Your task to perform on an android device: Go to wifi settings Image 0: 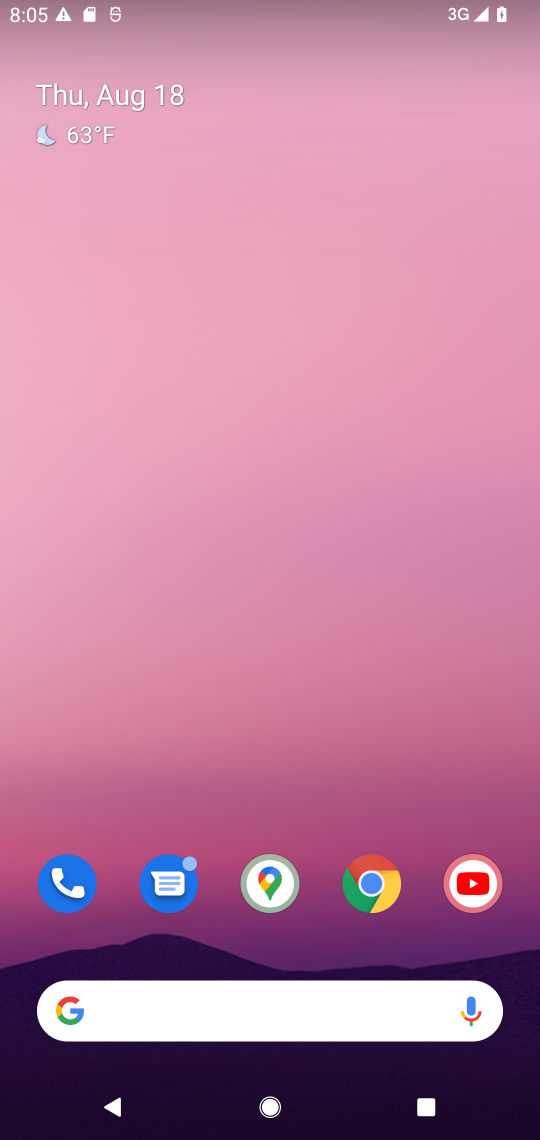
Step 0: drag from (46, 1091) to (293, 333)
Your task to perform on an android device: Go to wifi settings Image 1: 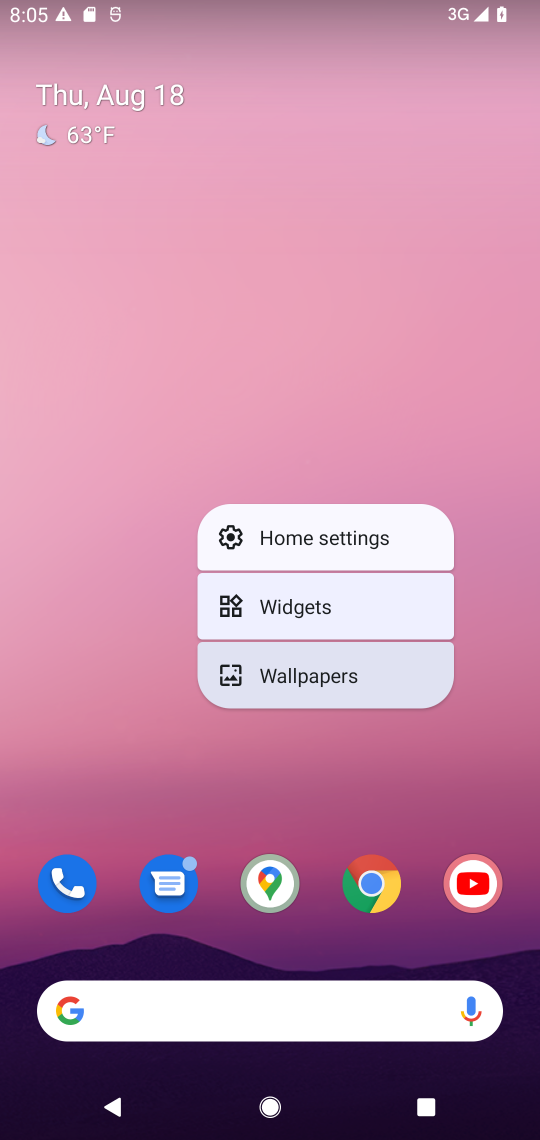
Step 1: drag from (72, 1006) to (207, 380)
Your task to perform on an android device: Go to wifi settings Image 2: 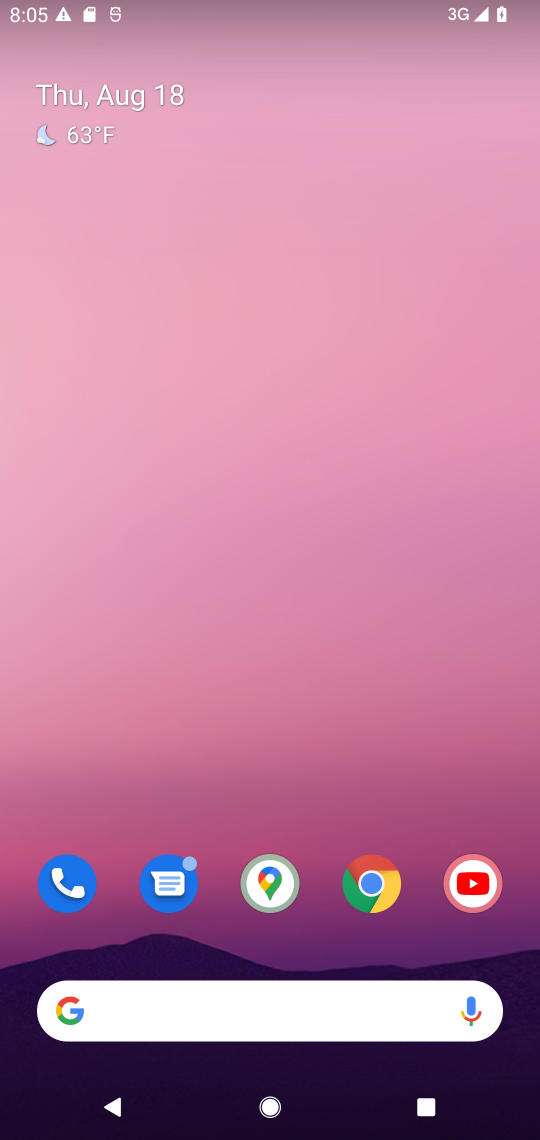
Step 2: drag from (45, 1082) to (325, 366)
Your task to perform on an android device: Go to wifi settings Image 3: 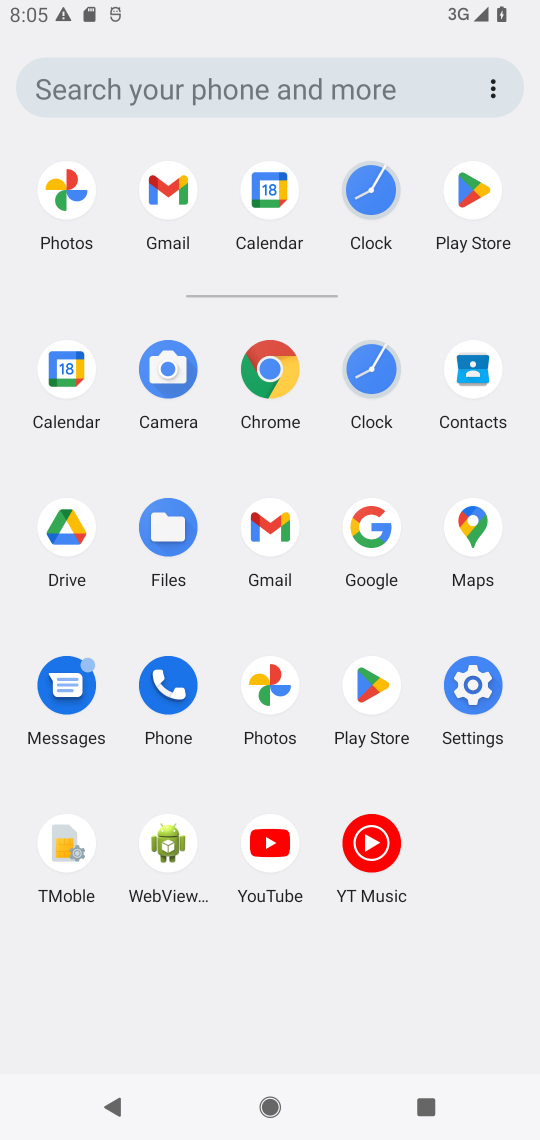
Step 3: click (458, 671)
Your task to perform on an android device: Go to wifi settings Image 4: 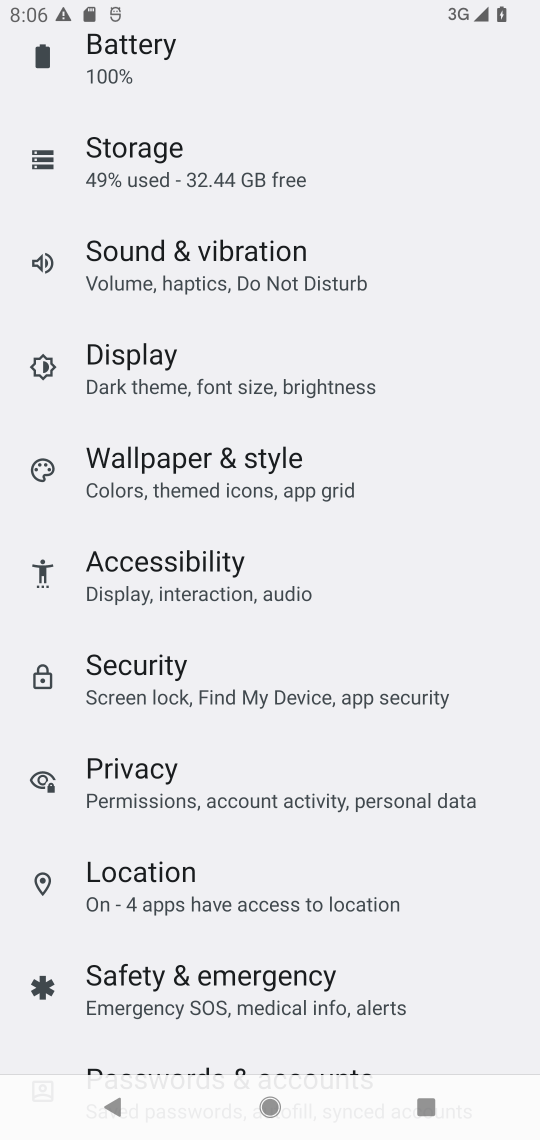
Step 4: drag from (413, 138) to (400, 775)
Your task to perform on an android device: Go to wifi settings Image 5: 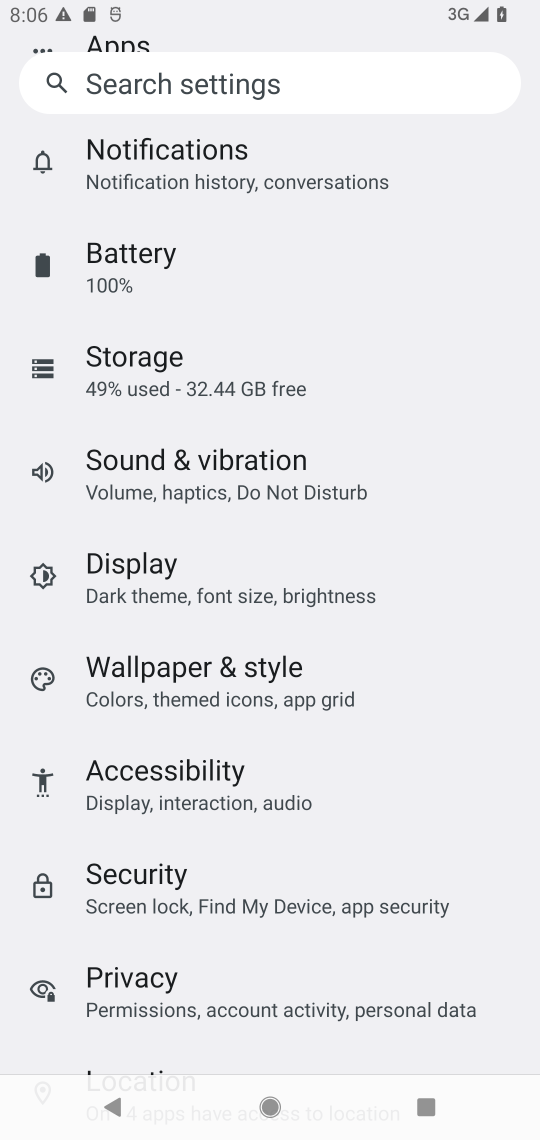
Step 5: drag from (405, 150) to (341, 700)
Your task to perform on an android device: Go to wifi settings Image 6: 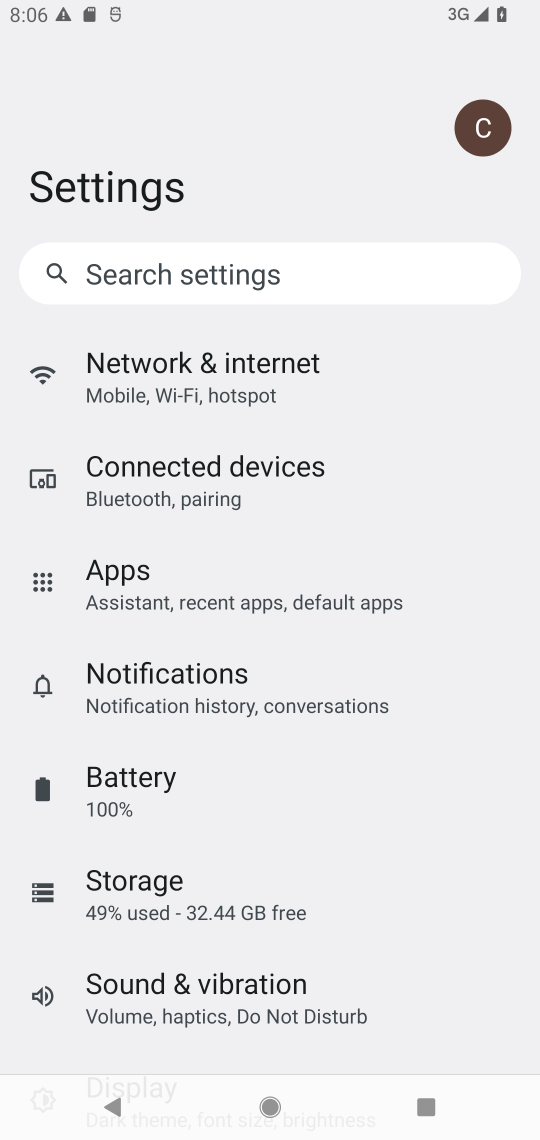
Step 6: click (255, 398)
Your task to perform on an android device: Go to wifi settings Image 7: 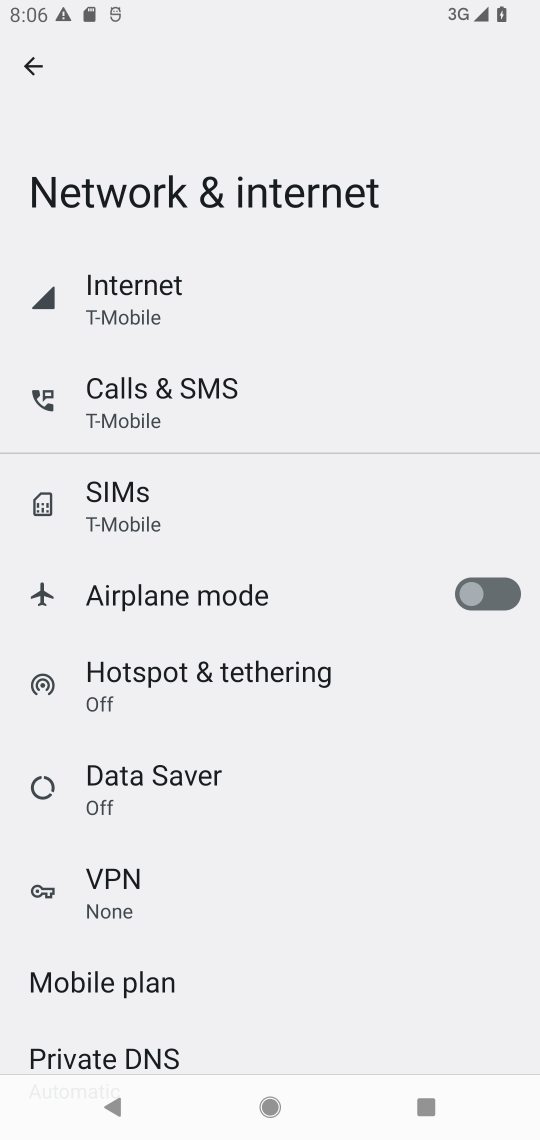
Step 7: click (168, 286)
Your task to perform on an android device: Go to wifi settings Image 8: 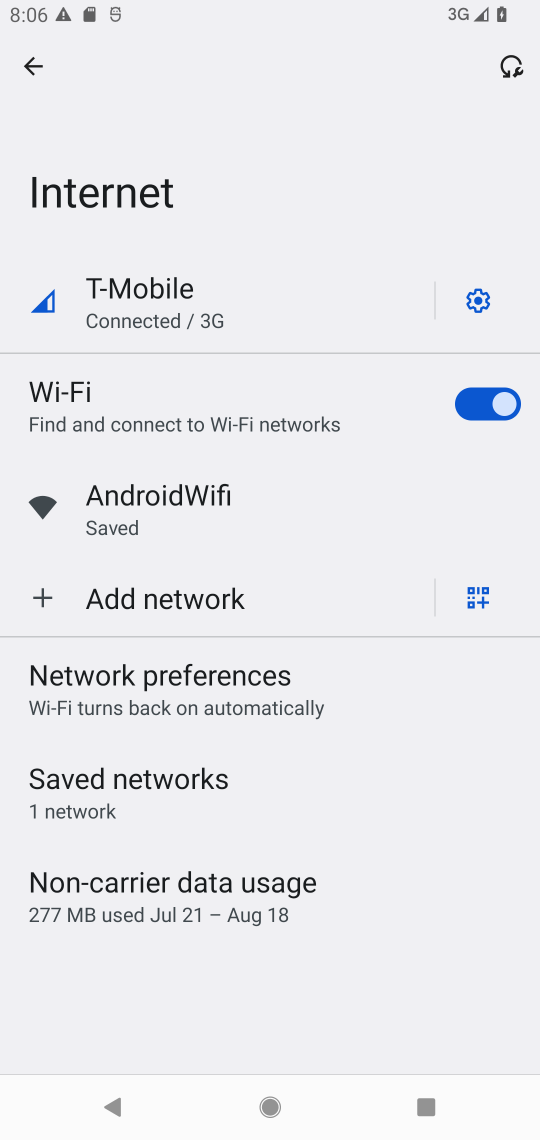
Step 8: task complete